Your task to perform on an android device: Go to Reddit.com Image 0: 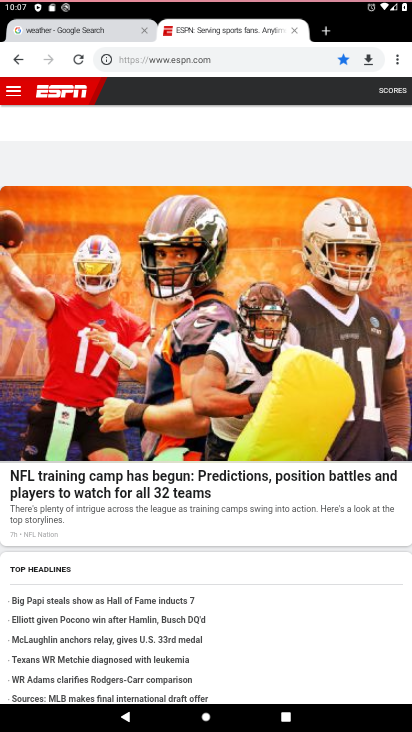
Step 0: click (292, 21)
Your task to perform on an android device: Go to Reddit.com Image 1: 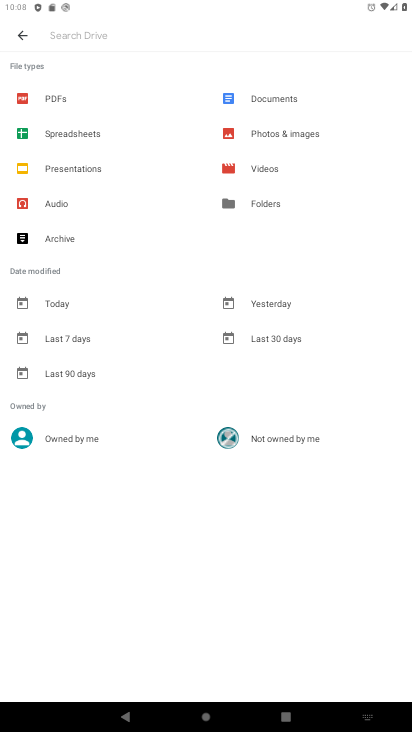
Step 1: press home button
Your task to perform on an android device: Go to Reddit.com Image 2: 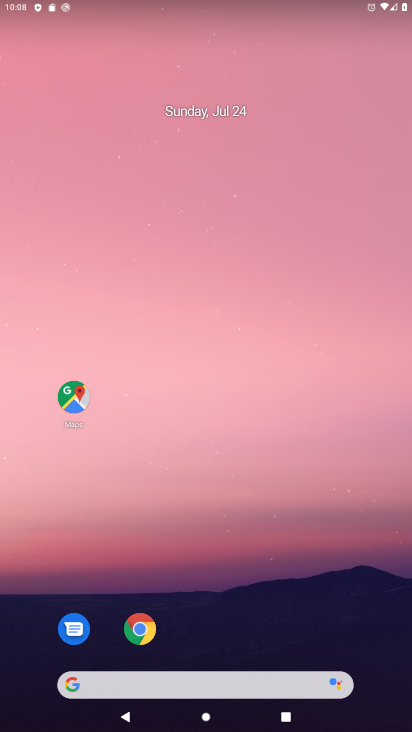
Step 2: click (142, 631)
Your task to perform on an android device: Go to Reddit.com Image 3: 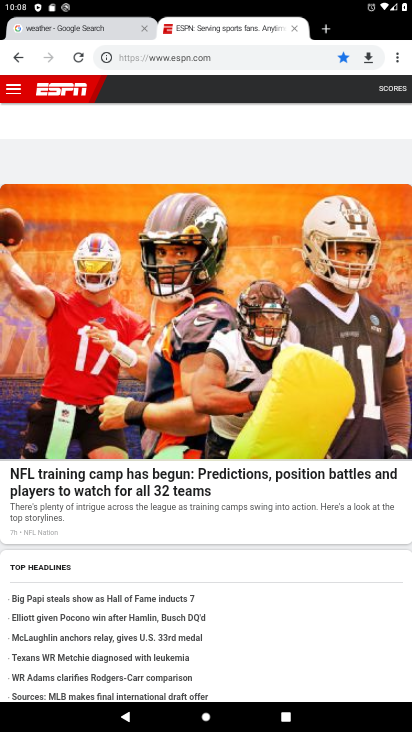
Step 3: click (260, 58)
Your task to perform on an android device: Go to Reddit.com Image 4: 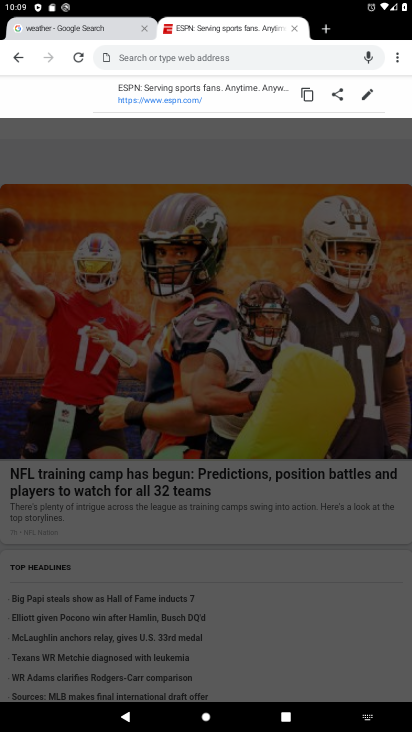
Step 4: type "Reddit.com"
Your task to perform on an android device: Go to Reddit.com Image 5: 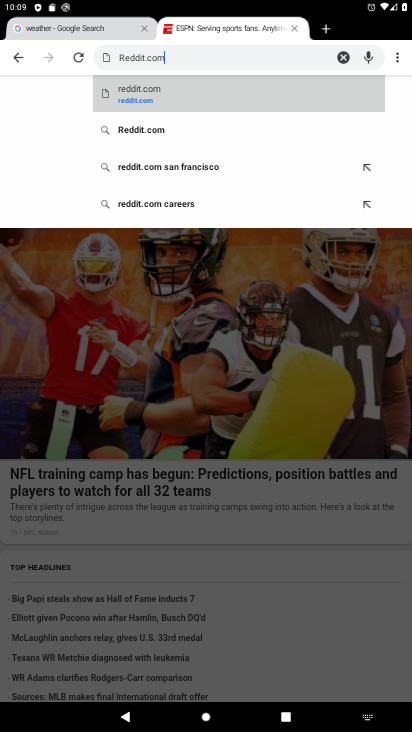
Step 5: type ""
Your task to perform on an android device: Go to Reddit.com Image 6: 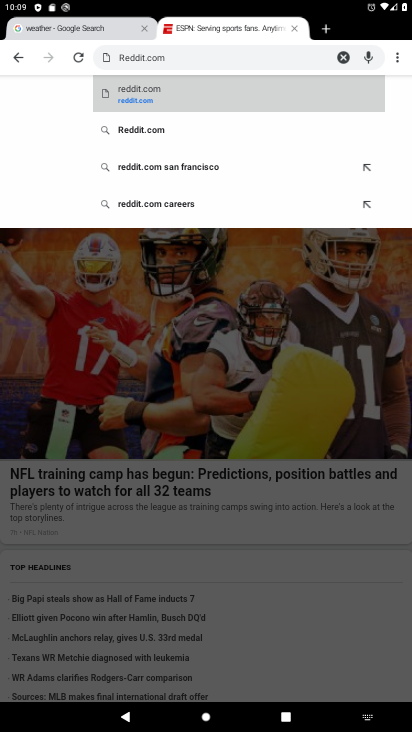
Step 6: click (145, 132)
Your task to perform on an android device: Go to Reddit.com Image 7: 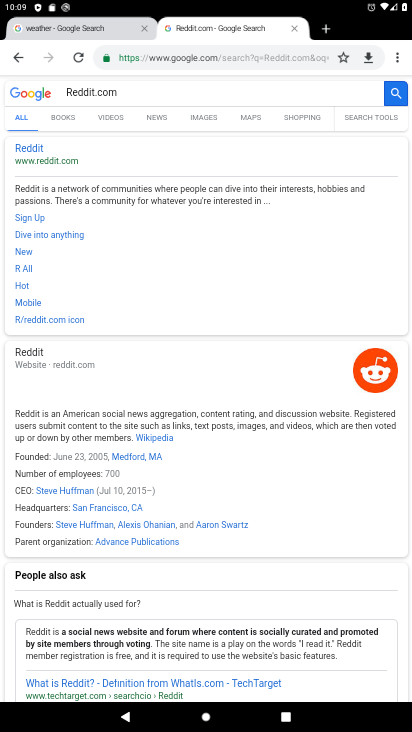
Step 7: click (65, 160)
Your task to perform on an android device: Go to Reddit.com Image 8: 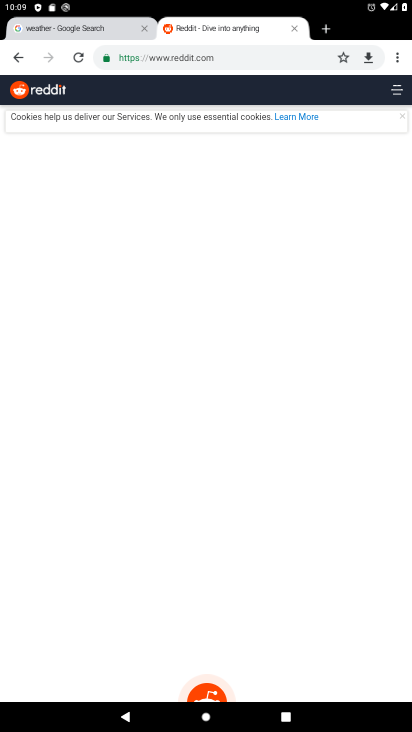
Step 8: task complete